Your task to perform on an android device: Open Google Maps and go to "Timeline" Image 0: 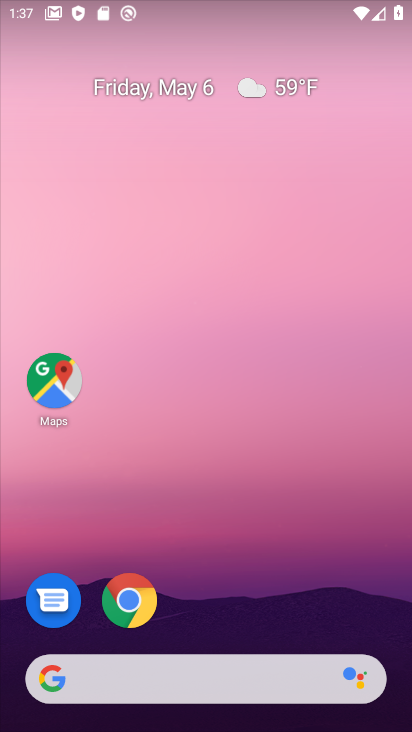
Step 0: click (51, 379)
Your task to perform on an android device: Open Google Maps and go to "Timeline" Image 1: 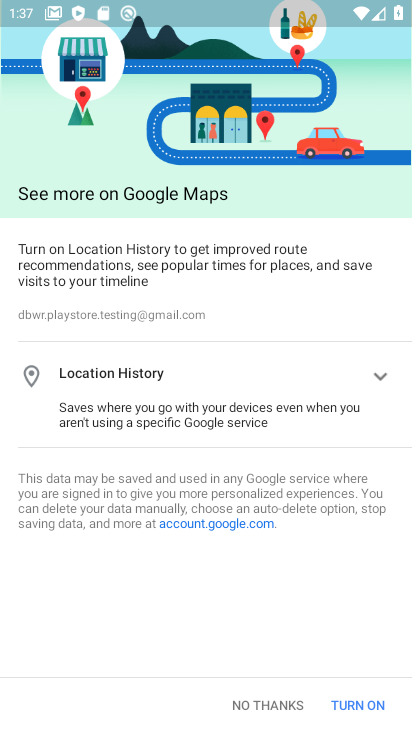
Step 1: task complete